Your task to perform on an android device: turn pop-ups off in chrome Image 0: 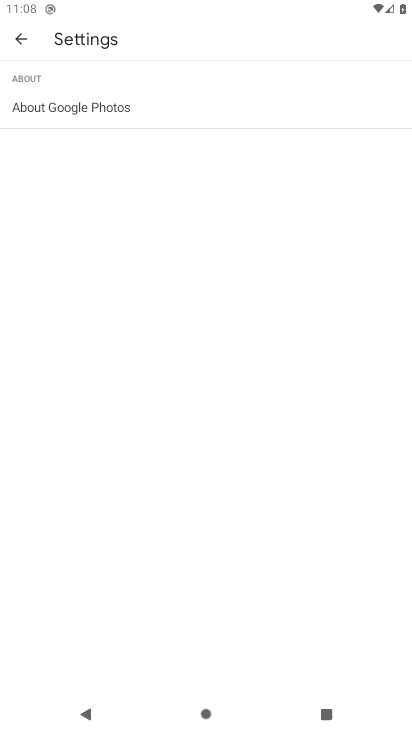
Step 0: press home button
Your task to perform on an android device: turn pop-ups off in chrome Image 1: 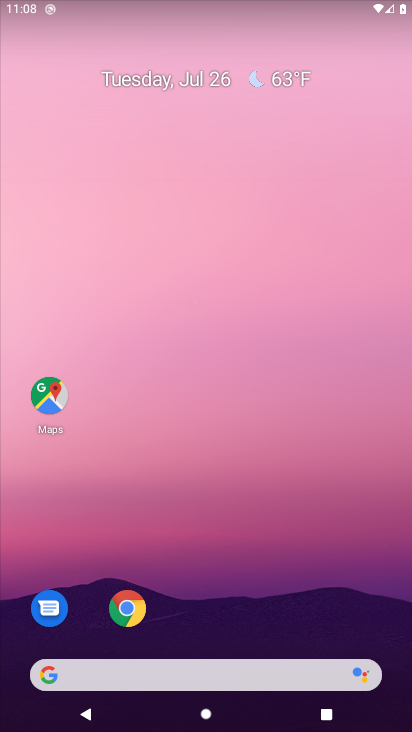
Step 1: click (125, 598)
Your task to perform on an android device: turn pop-ups off in chrome Image 2: 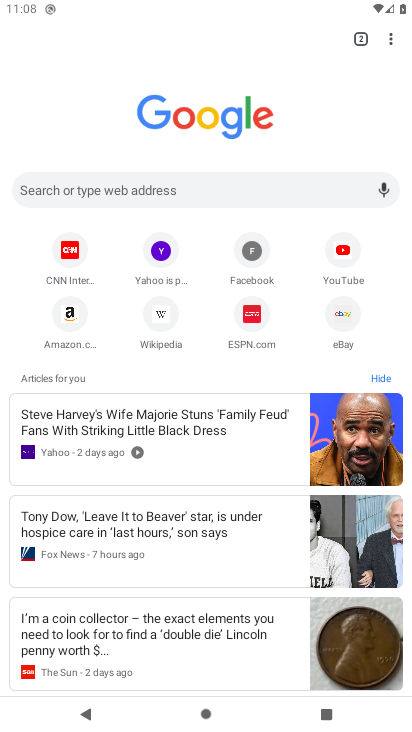
Step 2: drag from (392, 32) to (256, 323)
Your task to perform on an android device: turn pop-ups off in chrome Image 3: 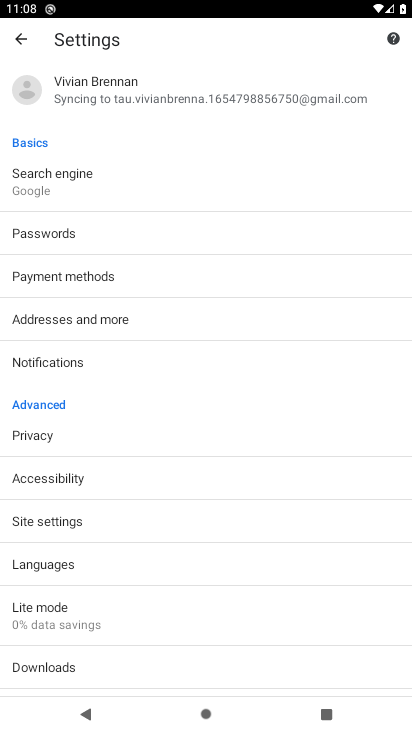
Step 3: click (53, 512)
Your task to perform on an android device: turn pop-ups off in chrome Image 4: 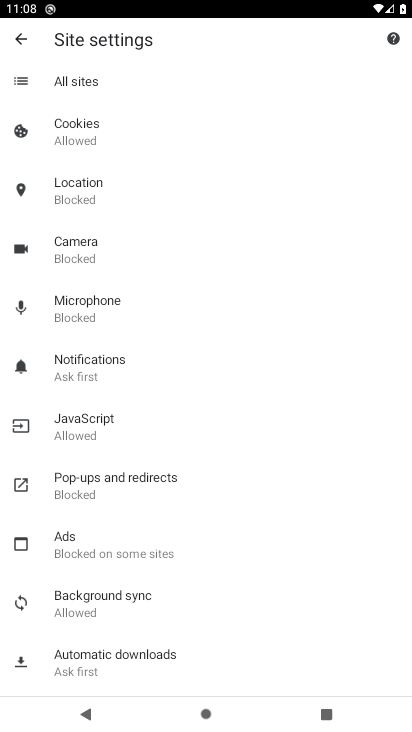
Step 4: click (77, 485)
Your task to perform on an android device: turn pop-ups off in chrome Image 5: 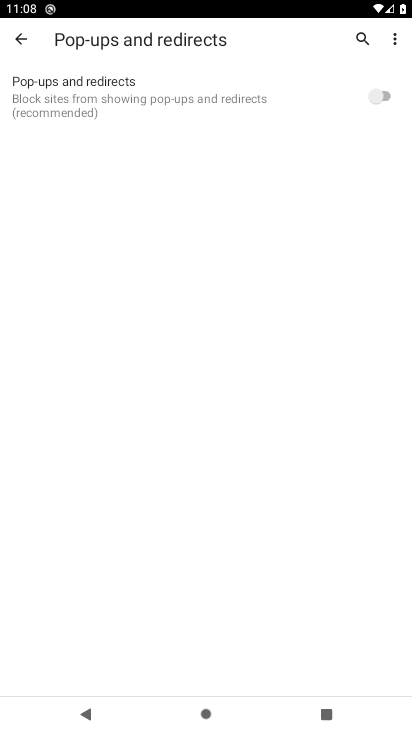
Step 5: task complete